Your task to perform on an android device: turn on bluetooth scan Image 0: 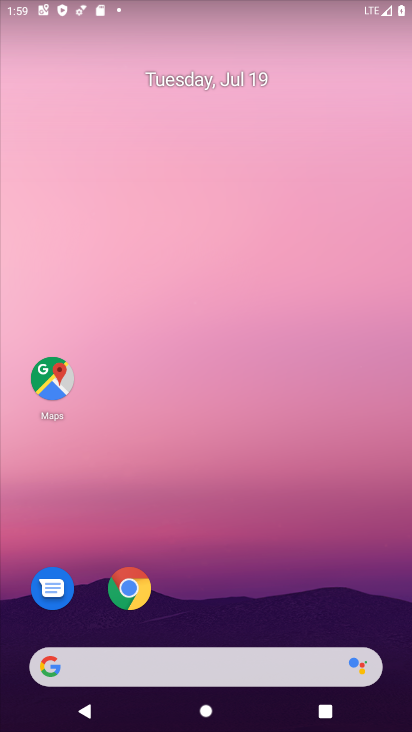
Step 0: drag from (232, 559) to (213, 136)
Your task to perform on an android device: turn on bluetooth scan Image 1: 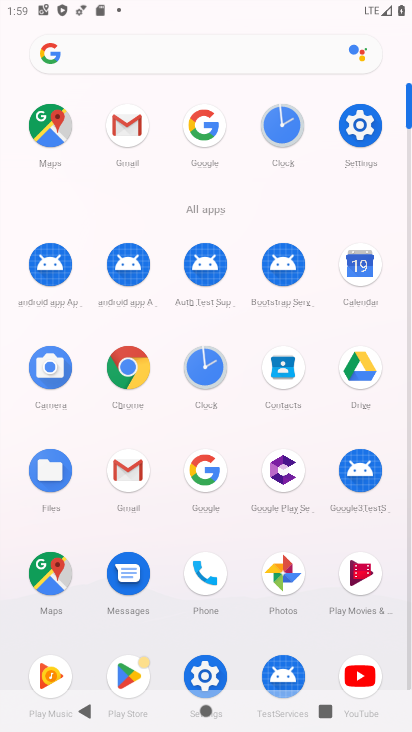
Step 1: click (353, 129)
Your task to perform on an android device: turn on bluetooth scan Image 2: 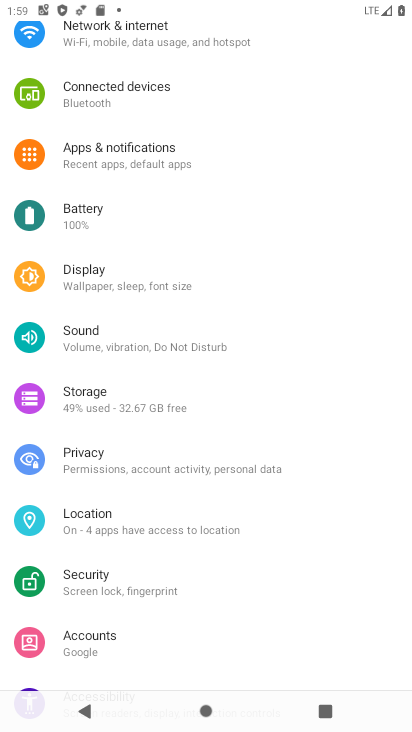
Step 2: click (93, 521)
Your task to perform on an android device: turn on bluetooth scan Image 3: 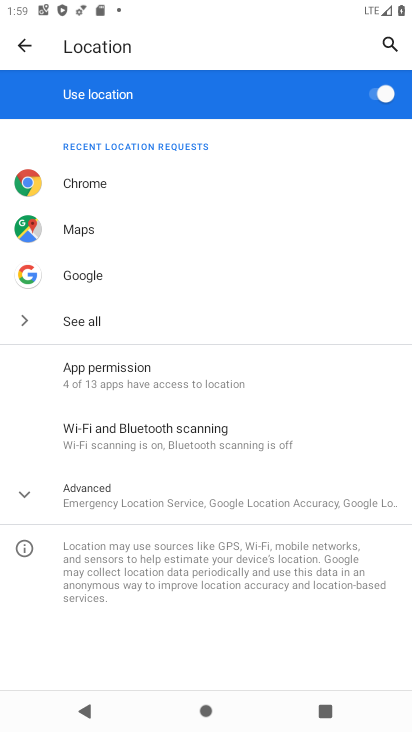
Step 3: click (66, 491)
Your task to perform on an android device: turn on bluetooth scan Image 4: 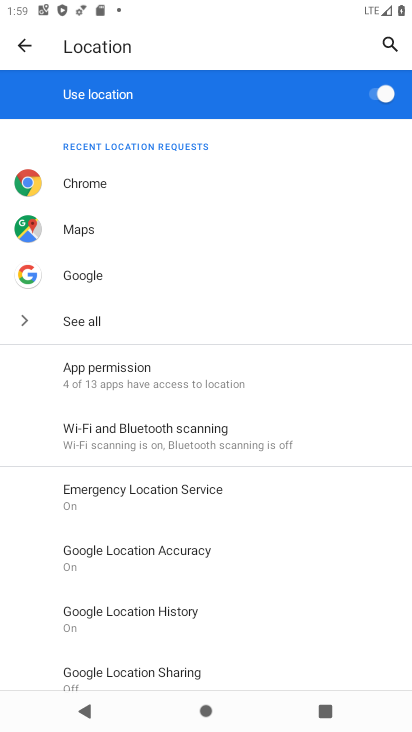
Step 4: click (172, 425)
Your task to perform on an android device: turn on bluetooth scan Image 5: 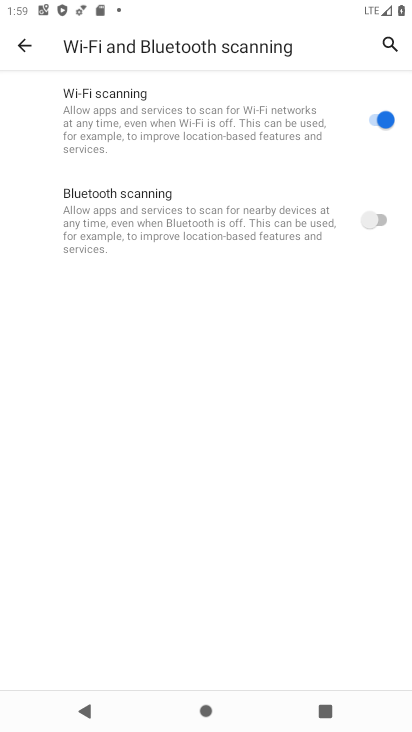
Step 5: click (365, 210)
Your task to perform on an android device: turn on bluetooth scan Image 6: 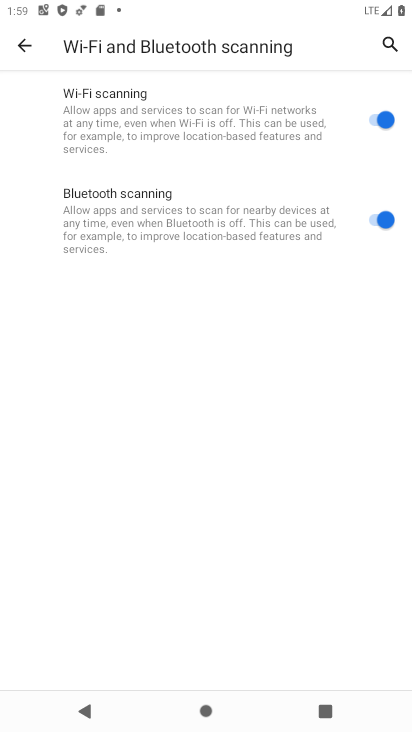
Step 6: task complete